Your task to perform on an android device: check data usage Image 0: 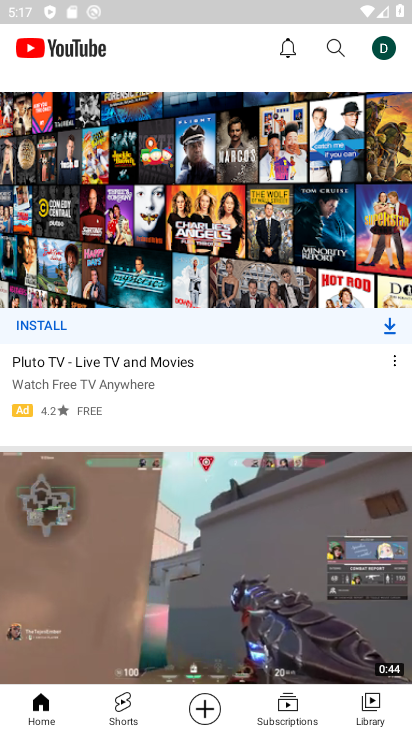
Step 0: press home button
Your task to perform on an android device: check data usage Image 1: 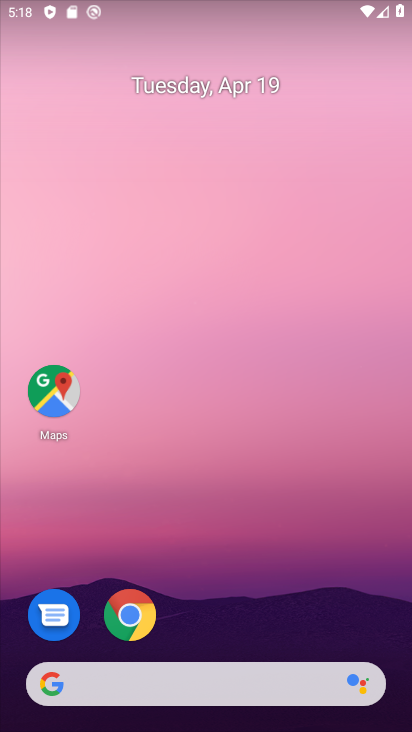
Step 1: drag from (200, 724) to (181, 0)
Your task to perform on an android device: check data usage Image 2: 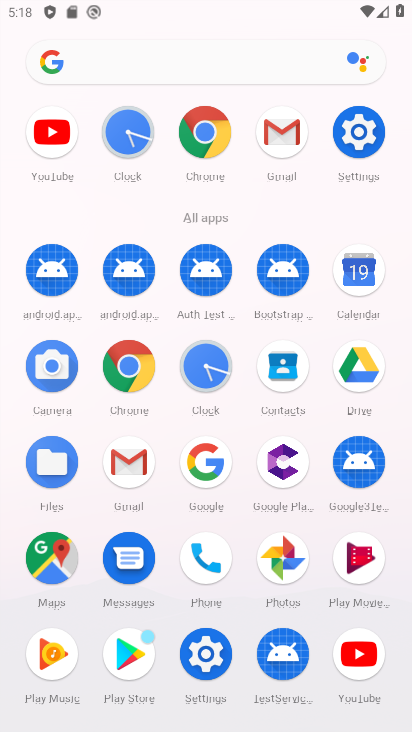
Step 2: click (356, 133)
Your task to perform on an android device: check data usage Image 3: 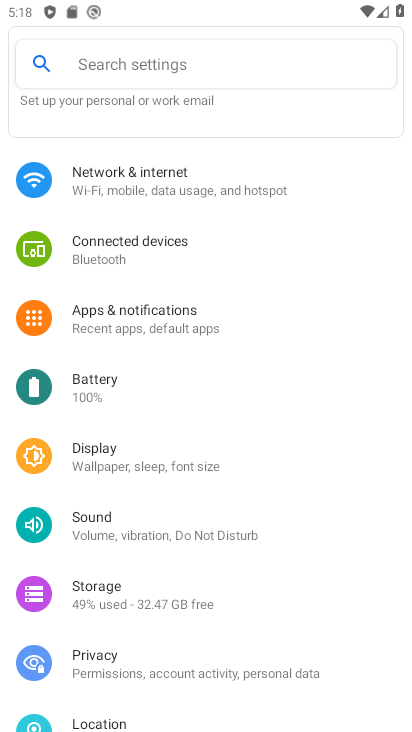
Step 3: drag from (165, 637) to (186, 251)
Your task to perform on an android device: check data usage Image 4: 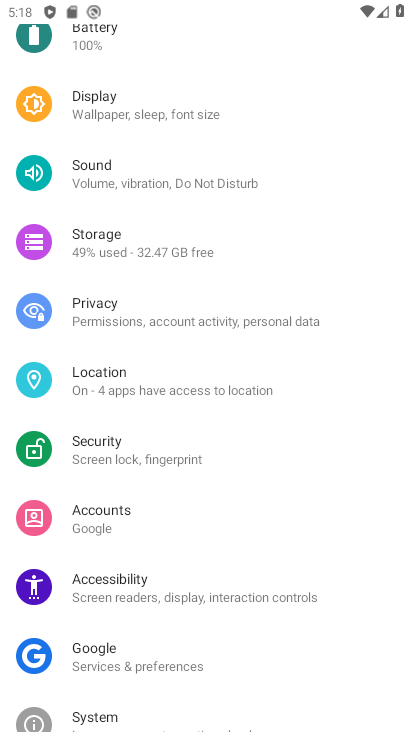
Step 4: drag from (220, 144) to (245, 694)
Your task to perform on an android device: check data usage Image 5: 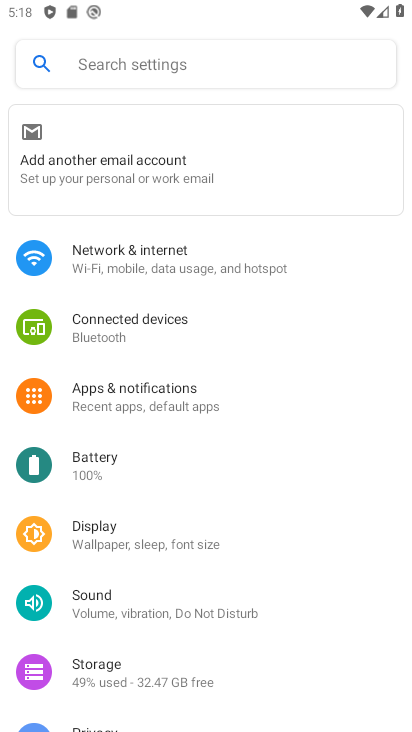
Step 5: click (123, 266)
Your task to perform on an android device: check data usage Image 6: 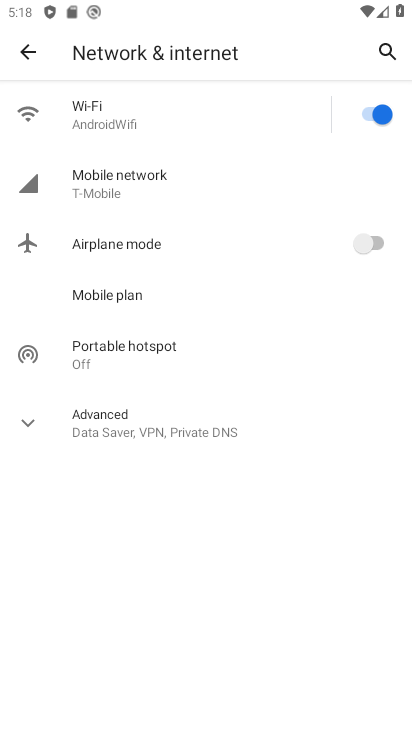
Step 6: click (99, 180)
Your task to perform on an android device: check data usage Image 7: 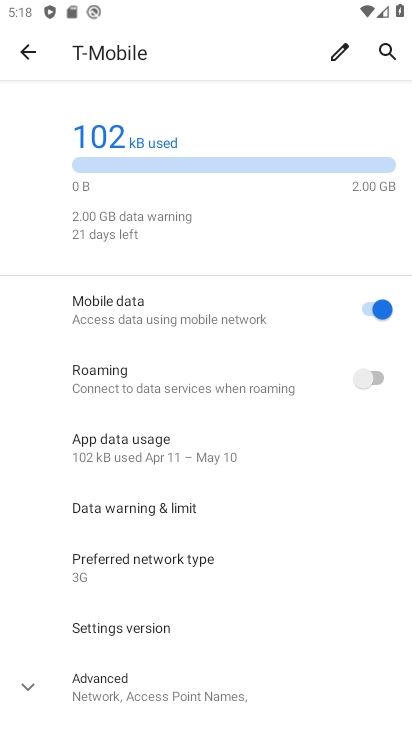
Step 7: click (117, 445)
Your task to perform on an android device: check data usage Image 8: 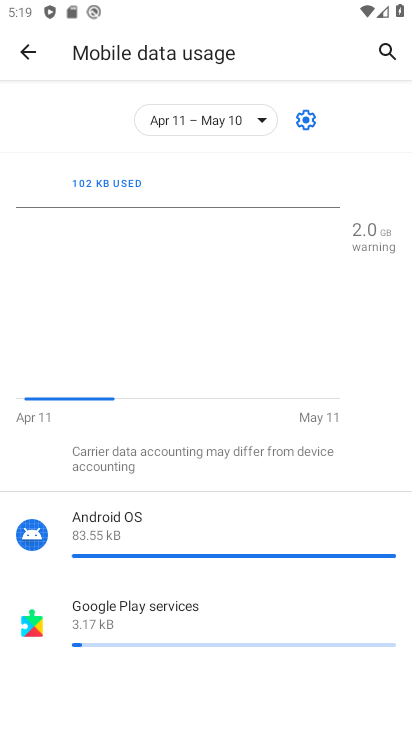
Step 8: task complete